Your task to perform on an android device: snooze an email in the gmail app Image 0: 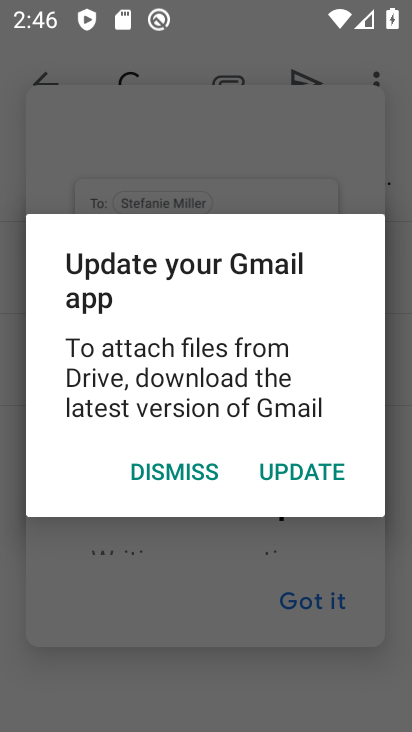
Step 0: press home button
Your task to perform on an android device: snooze an email in the gmail app Image 1: 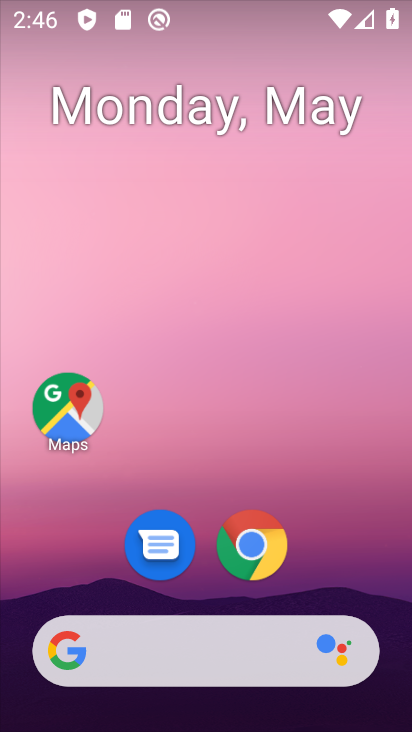
Step 1: drag from (142, 726) to (128, 109)
Your task to perform on an android device: snooze an email in the gmail app Image 2: 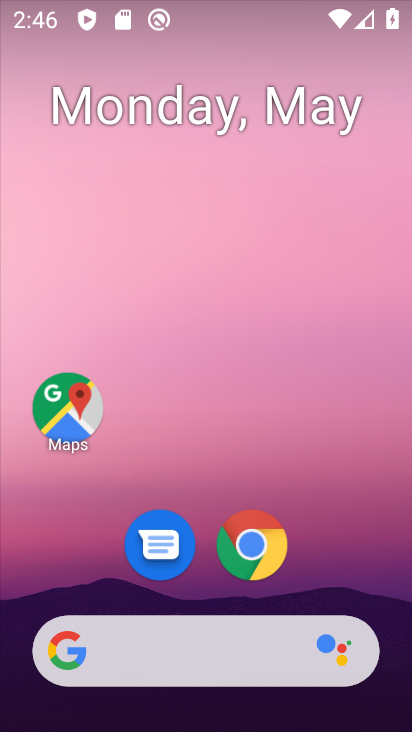
Step 2: drag from (158, 731) to (195, 68)
Your task to perform on an android device: snooze an email in the gmail app Image 3: 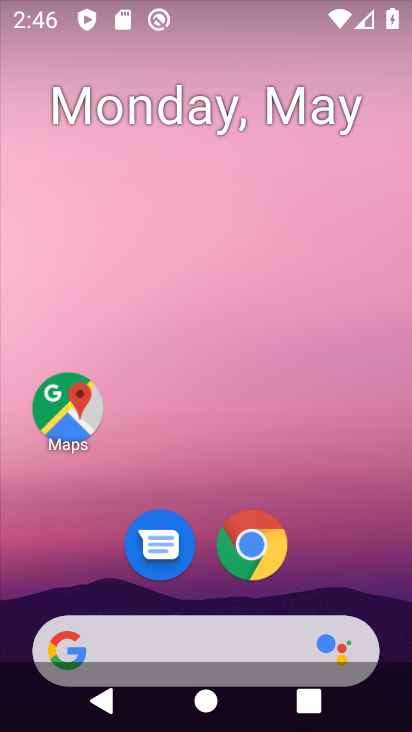
Step 3: drag from (155, 722) to (181, 63)
Your task to perform on an android device: snooze an email in the gmail app Image 4: 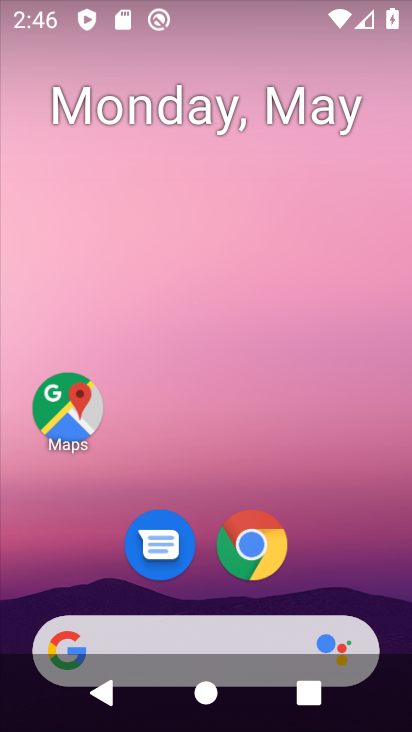
Step 4: drag from (150, 729) to (185, 94)
Your task to perform on an android device: snooze an email in the gmail app Image 5: 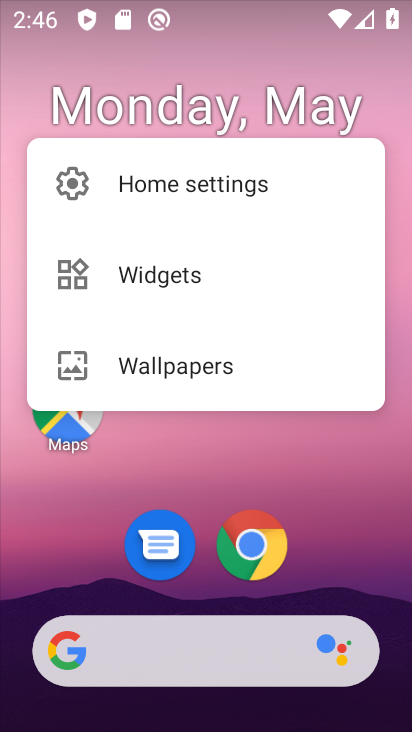
Step 5: press home button
Your task to perform on an android device: snooze an email in the gmail app Image 6: 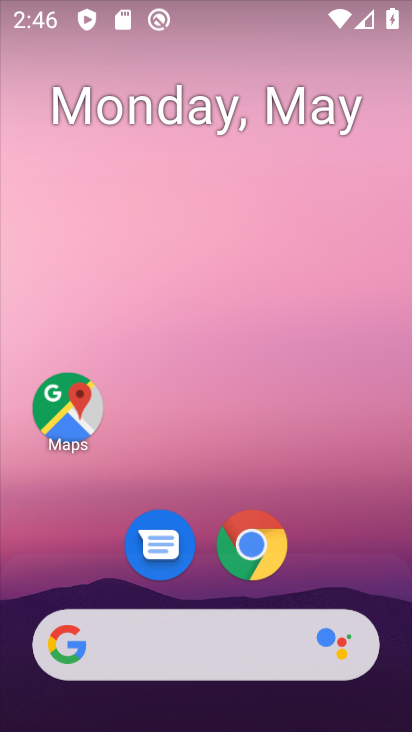
Step 6: drag from (127, 691) to (168, 51)
Your task to perform on an android device: snooze an email in the gmail app Image 7: 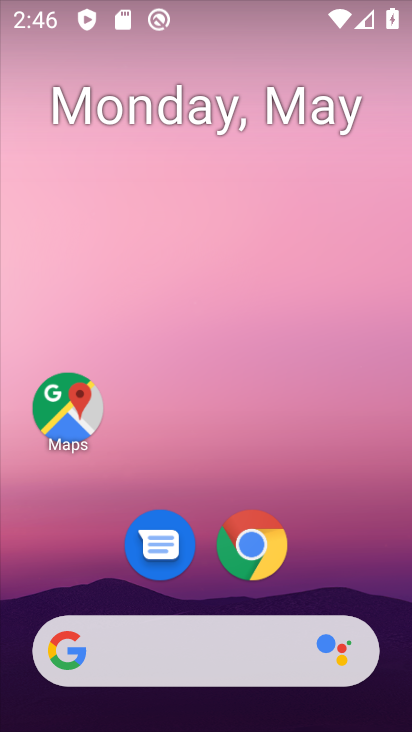
Step 7: drag from (139, 725) to (173, 124)
Your task to perform on an android device: snooze an email in the gmail app Image 8: 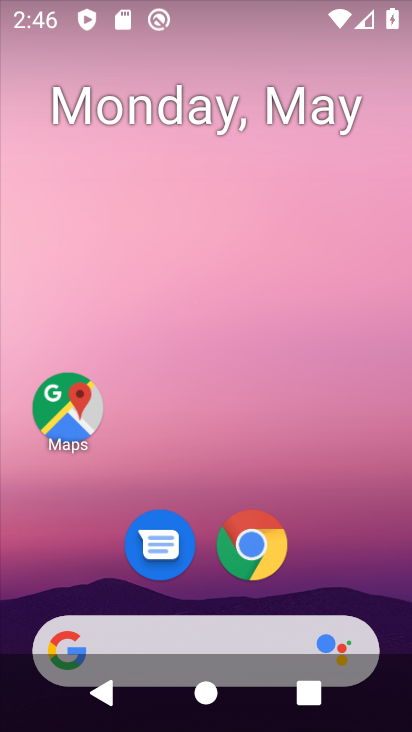
Step 8: drag from (148, 726) to (184, 49)
Your task to perform on an android device: snooze an email in the gmail app Image 9: 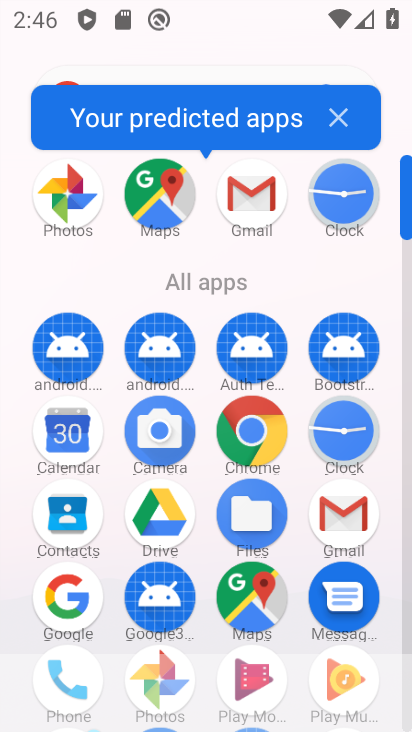
Step 9: click (349, 514)
Your task to perform on an android device: snooze an email in the gmail app Image 10: 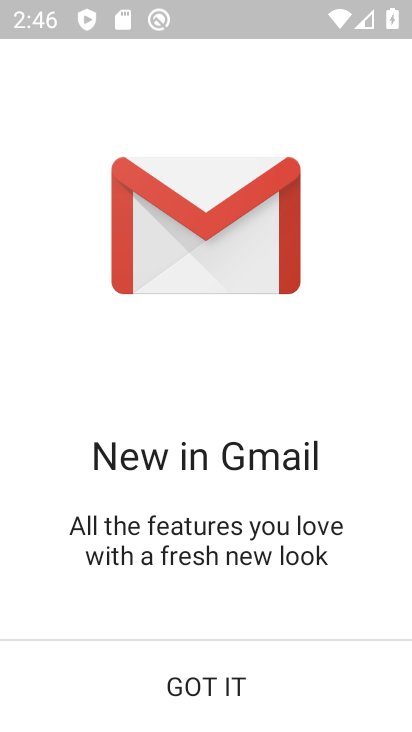
Step 10: click (237, 681)
Your task to perform on an android device: snooze an email in the gmail app Image 11: 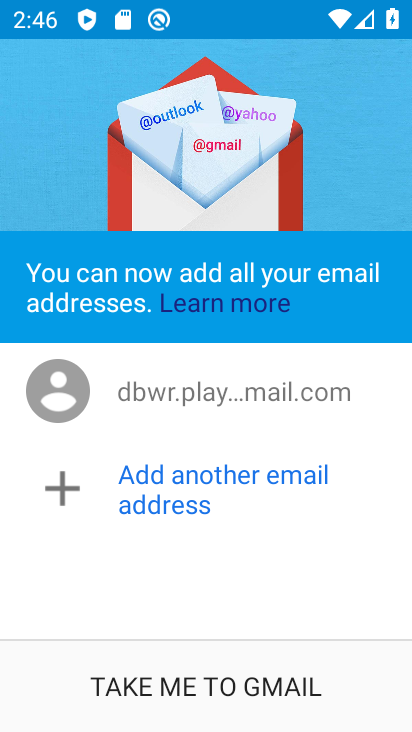
Step 11: click (236, 681)
Your task to perform on an android device: snooze an email in the gmail app Image 12: 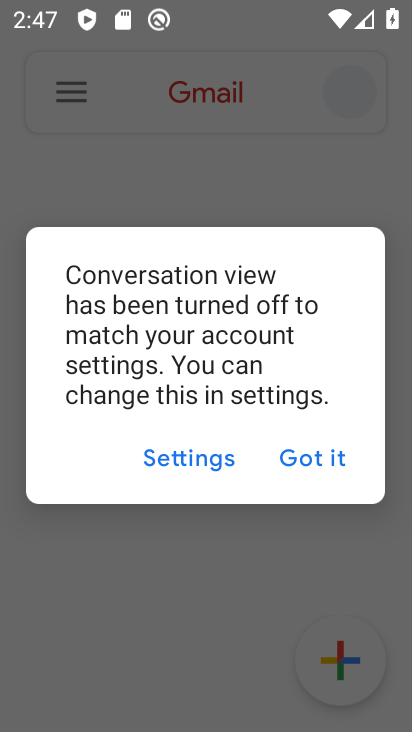
Step 12: click (310, 463)
Your task to perform on an android device: snooze an email in the gmail app Image 13: 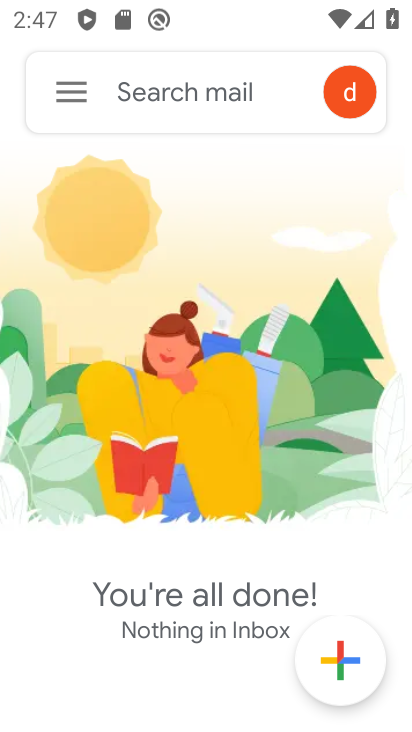
Step 13: click (66, 95)
Your task to perform on an android device: snooze an email in the gmail app Image 14: 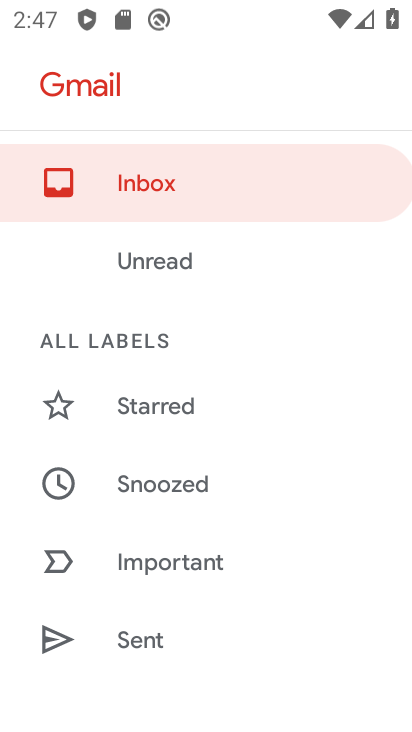
Step 14: drag from (265, 649) to (249, 271)
Your task to perform on an android device: snooze an email in the gmail app Image 15: 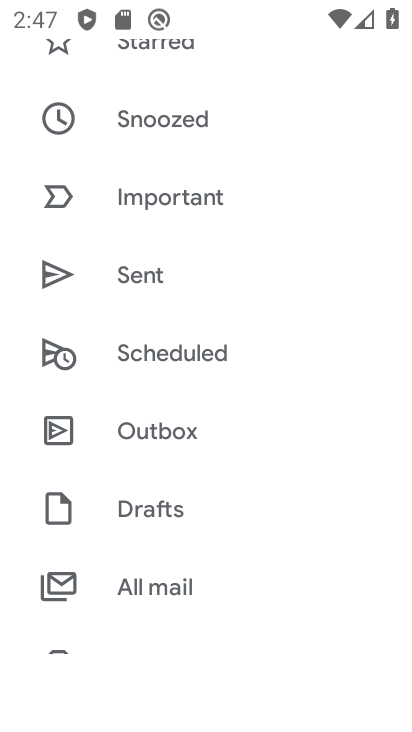
Step 15: click (182, 591)
Your task to perform on an android device: snooze an email in the gmail app Image 16: 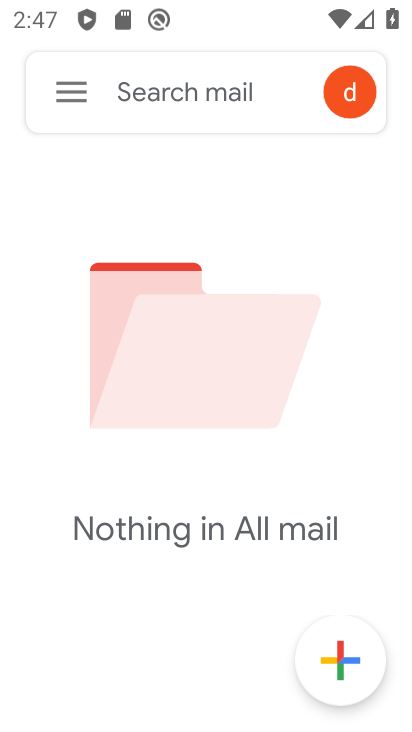
Step 16: task complete